Your task to perform on an android device: read, delete, or share a saved page in the chrome app Image 0: 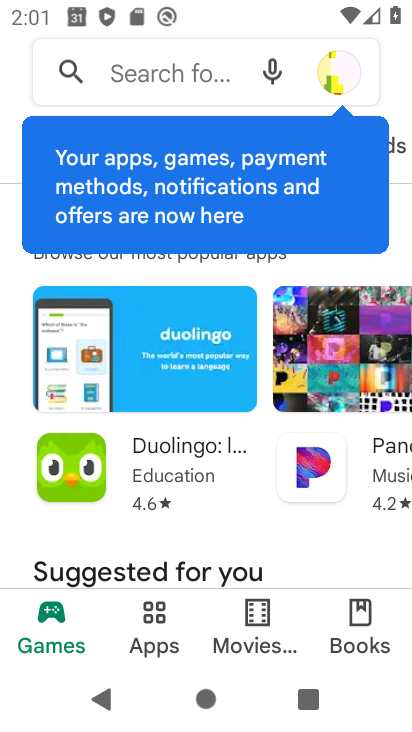
Step 0: press home button
Your task to perform on an android device: read, delete, or share a saved page in the chrome app Image 1: 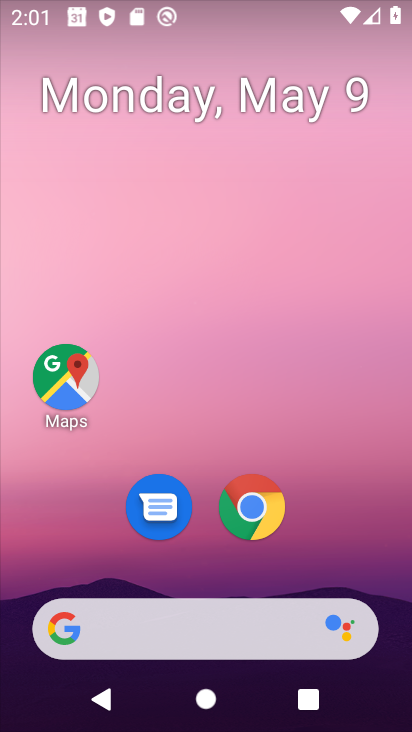
Step 1: click (254, 513)
Your task to perform on an android device: read, delete, or share a saved page in the chrome app Image 2: 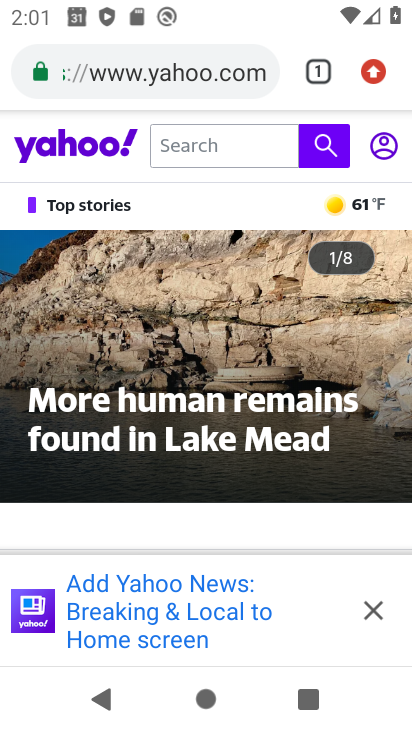
Step 2: click (376, 64)
Your task to perform on an android device: read, delete, or share a saved page in the chrome app Image 3: 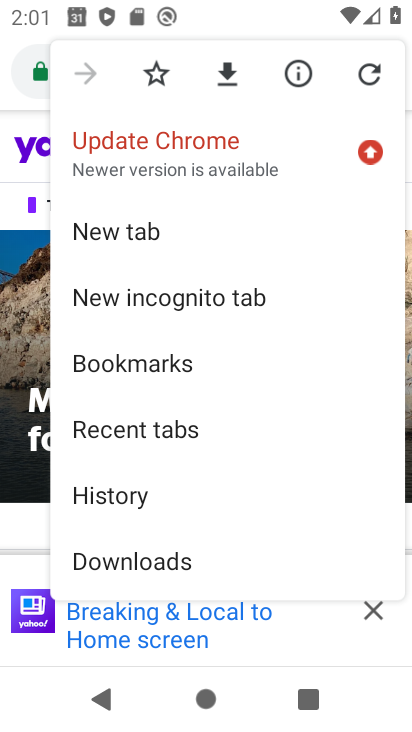
Step 3: click (131, 566)
Your task to perform on an android device: read, delete, or share a saved page in the chrome app Image 4: 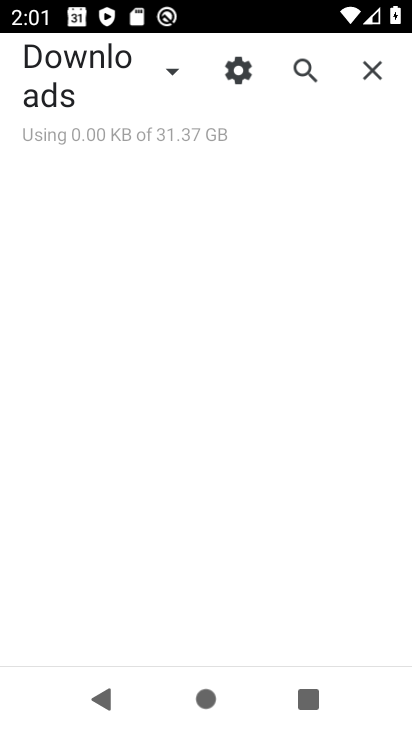
Step 4: click (166, 63)
Your task to perform on an android device: read, delete, or share a saved page in the chrome app Image 5: 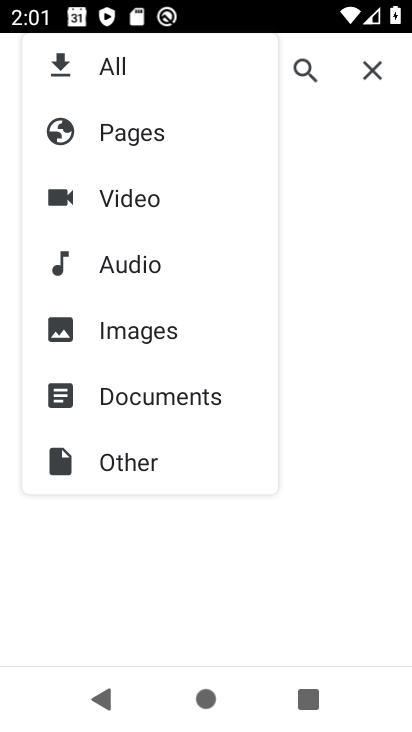
Step 5: click (135, 131)
Your task to perform on an android device: read, delete, or share a saved page in the chrome app Image 6: 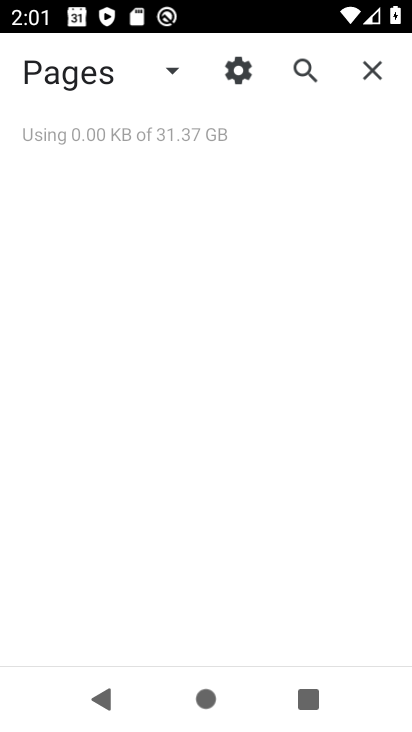
Step 6: task complete